Your task to perform on an android device: turn off location Image 0: 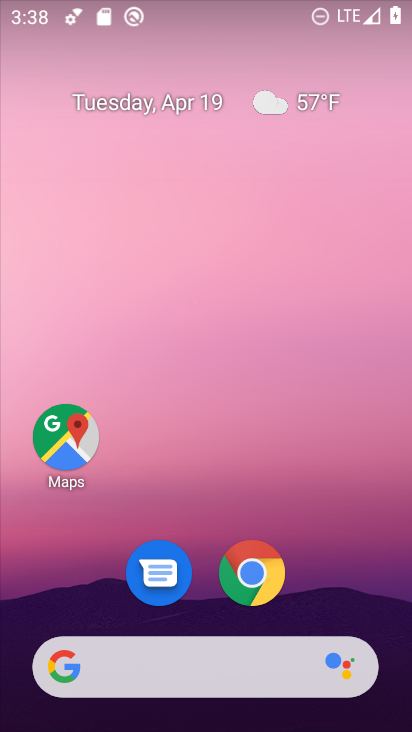
Step 0: drag from (357, 603) to (395, 543)
Your task to perform on an android device: turn off location Image 1: 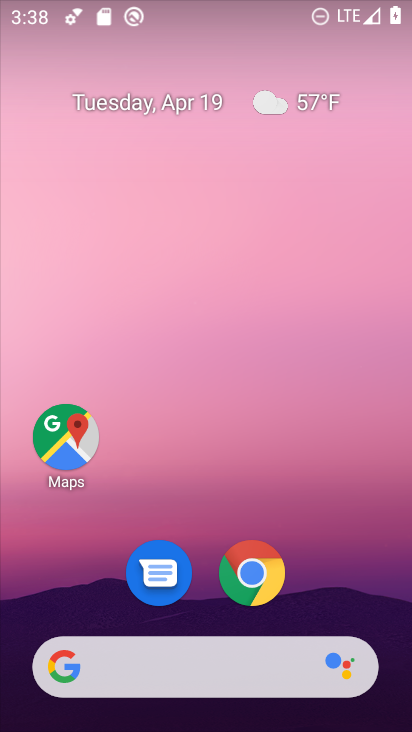
Step 1: drag from (349, 605) to (391, 628)
Your task to perform on an android device: turn off location Image 2: 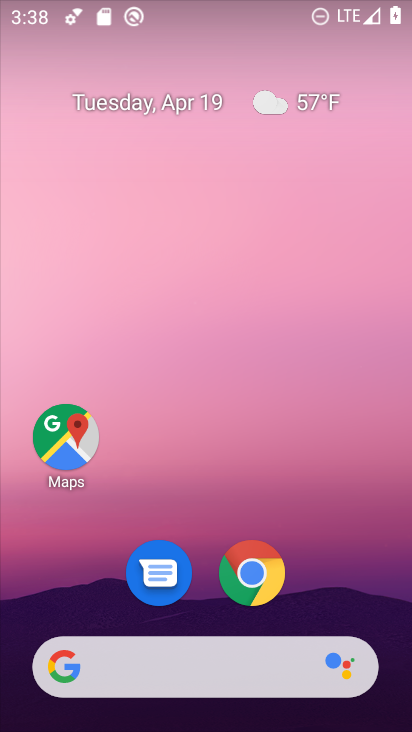
Step 2: drag from (376, 617) to (179, 1)
Your task to perform on an android device: turn off location Image 3: 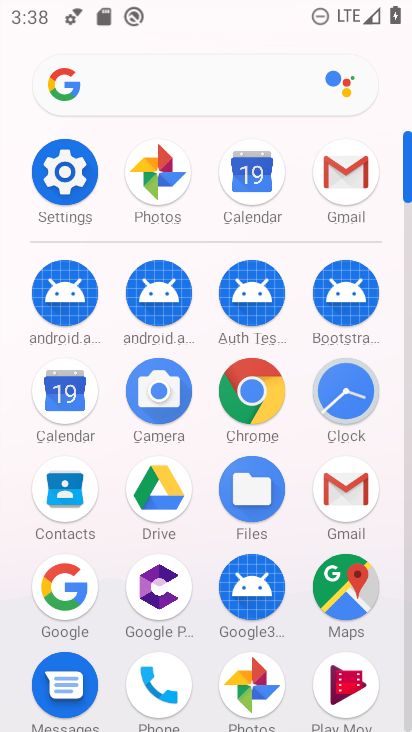
Step 3: click (53, 179)
Your task to perform on an android device: turn off location Image 4: 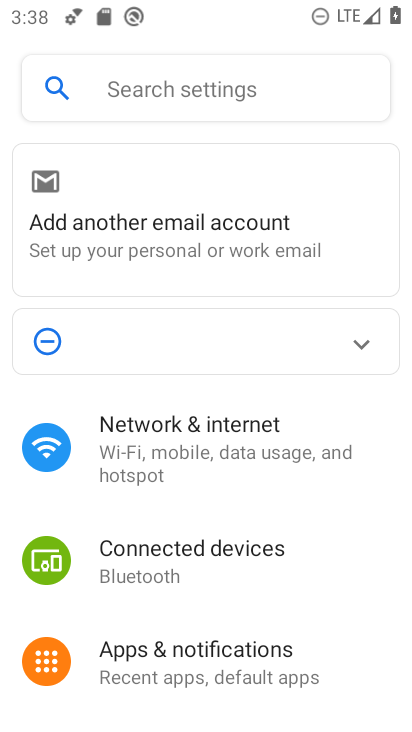
Step 4: drag from (370, 608) to (344, 23)
Your task to perform on an android device: turn off location Image 5: 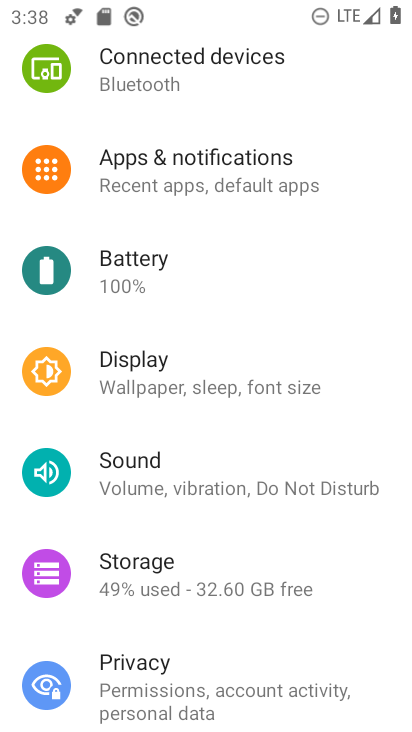
Step 5: drag from (376, 615) to (358, 151)
Your task to perform on an android device: turn off location Image 6: 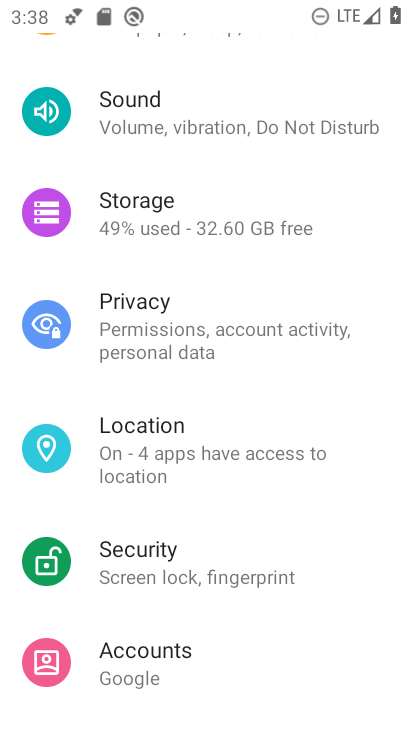
Step 6: click (152, 452)
Your task to perform on an android device: turn off location Image 7: 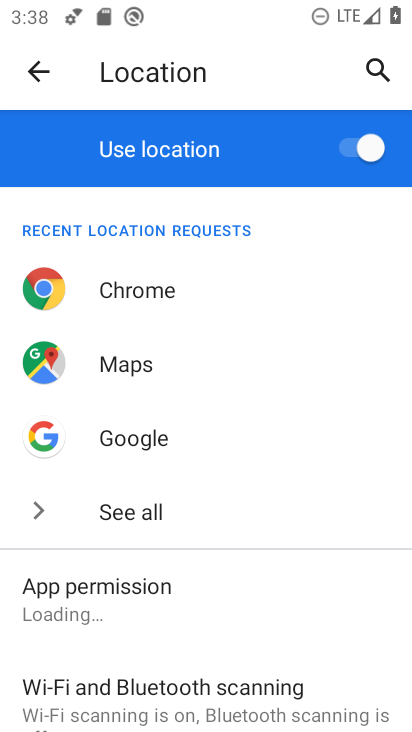
Step 7: click (361, 154)
Your task to perform on an android device: turn off location Image 8: 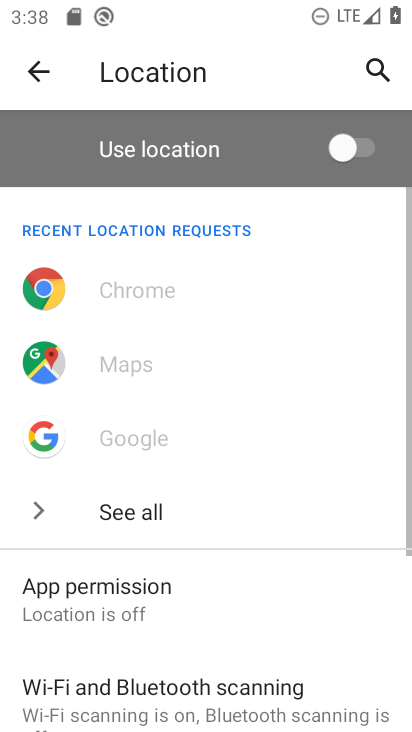
Step 8: task complete